Your task to perform on an android device: turn on notifications settings in the gmail app Image 0: 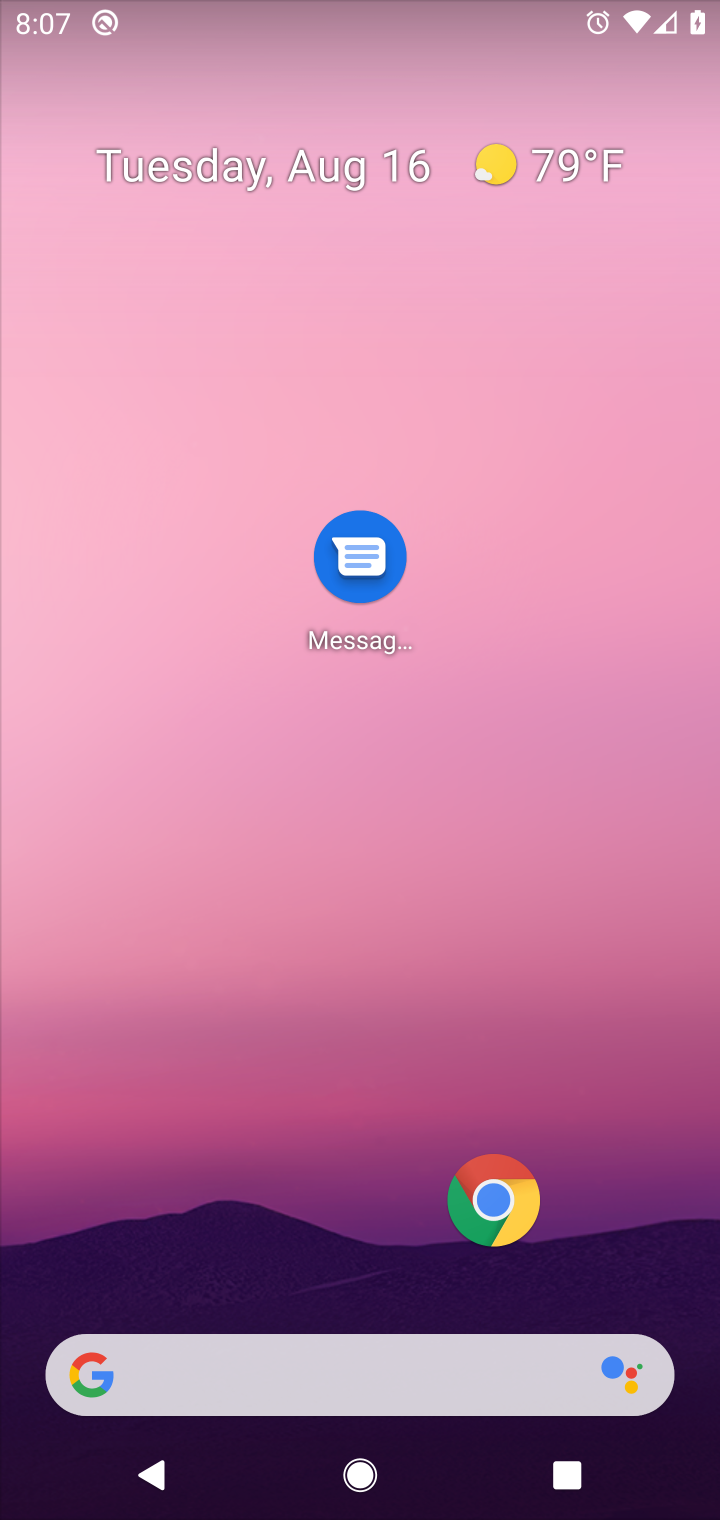
Step 0: drag from (55, 1463) to (373, 602)
Your task to perform on an android device: turn on notifications settings in the gmail app Image 1: 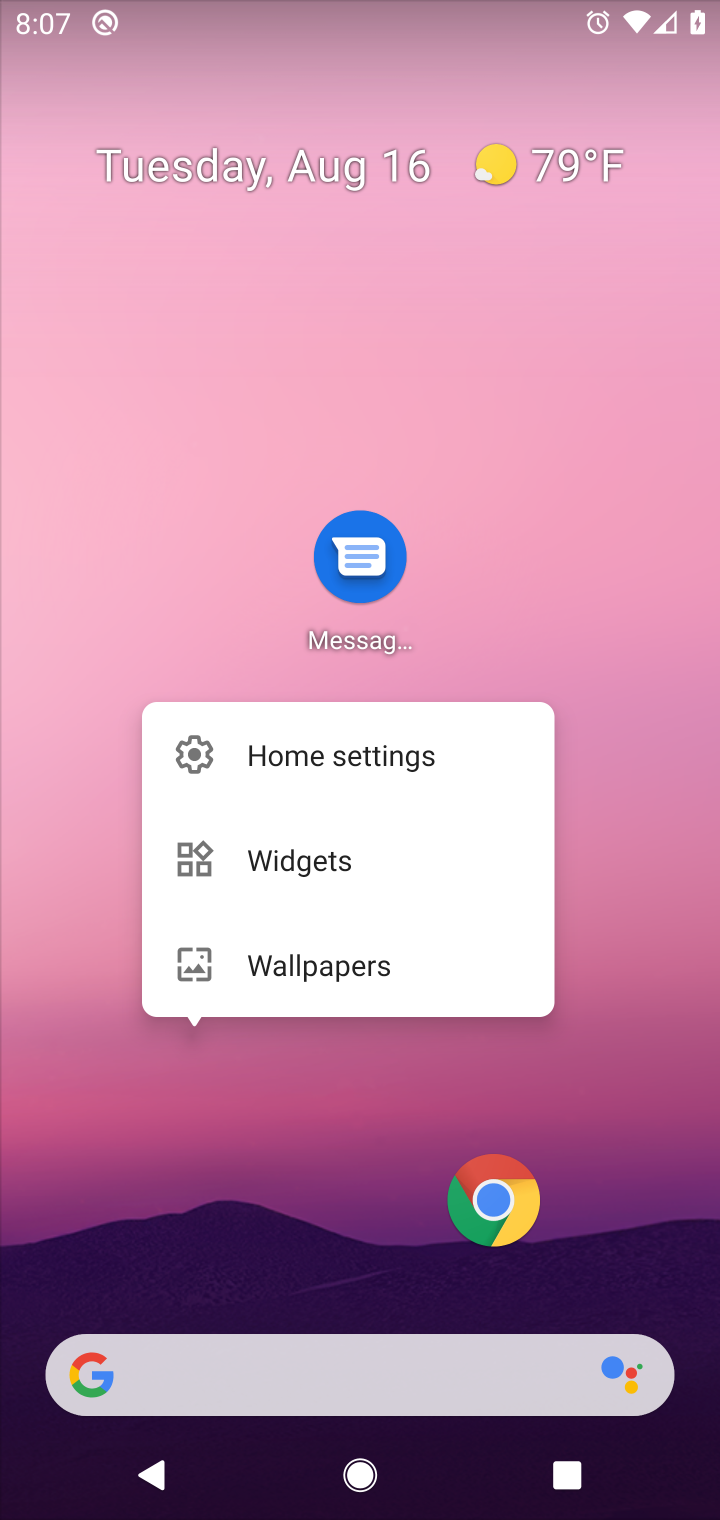
Step 1: drag from (14, 890) to (316, 289)
Your task to perform on an android device: turn on notifications settings in the gmail app Image 2: 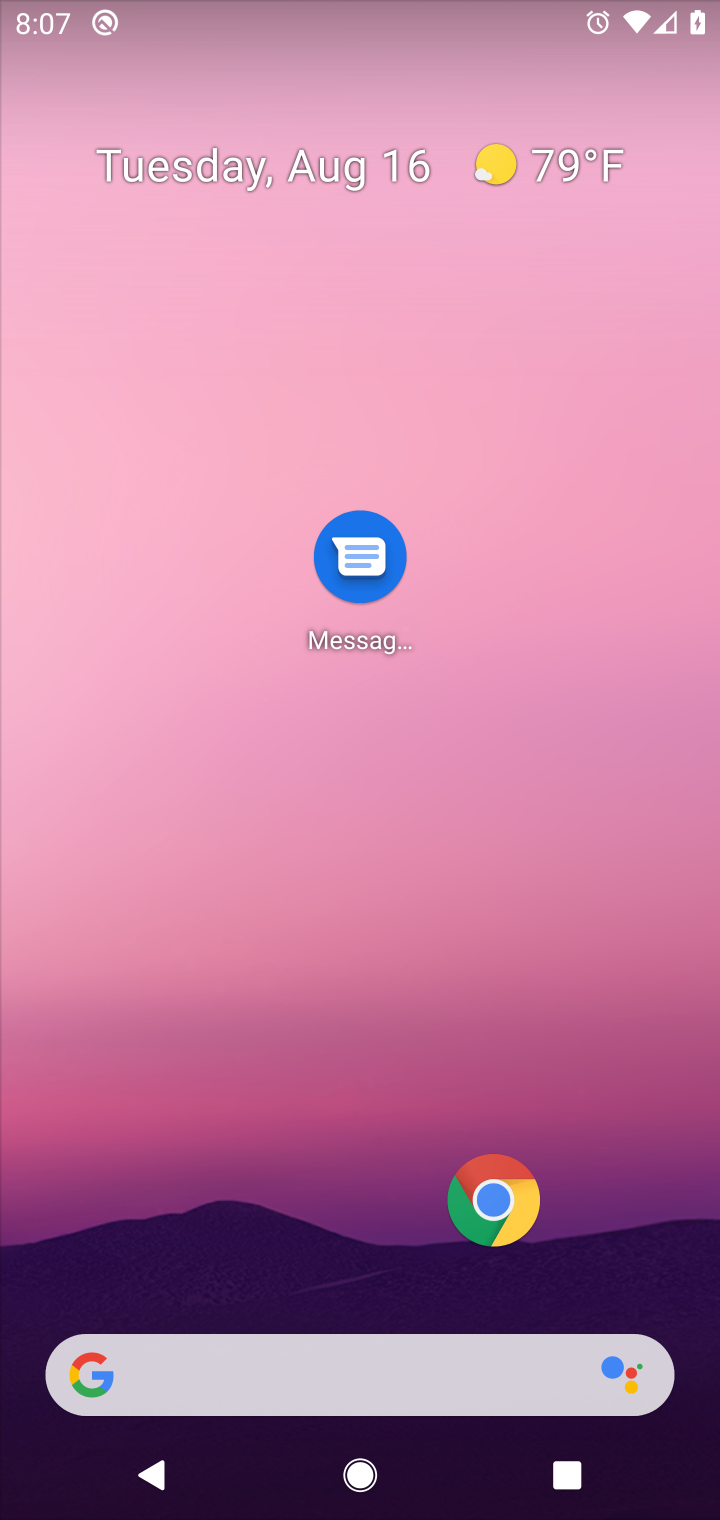
Step 2: drag from (163, 1402) to (220, 459)
Your task to perform on an android device: turn on notifications settings in the gmail app Image 3: 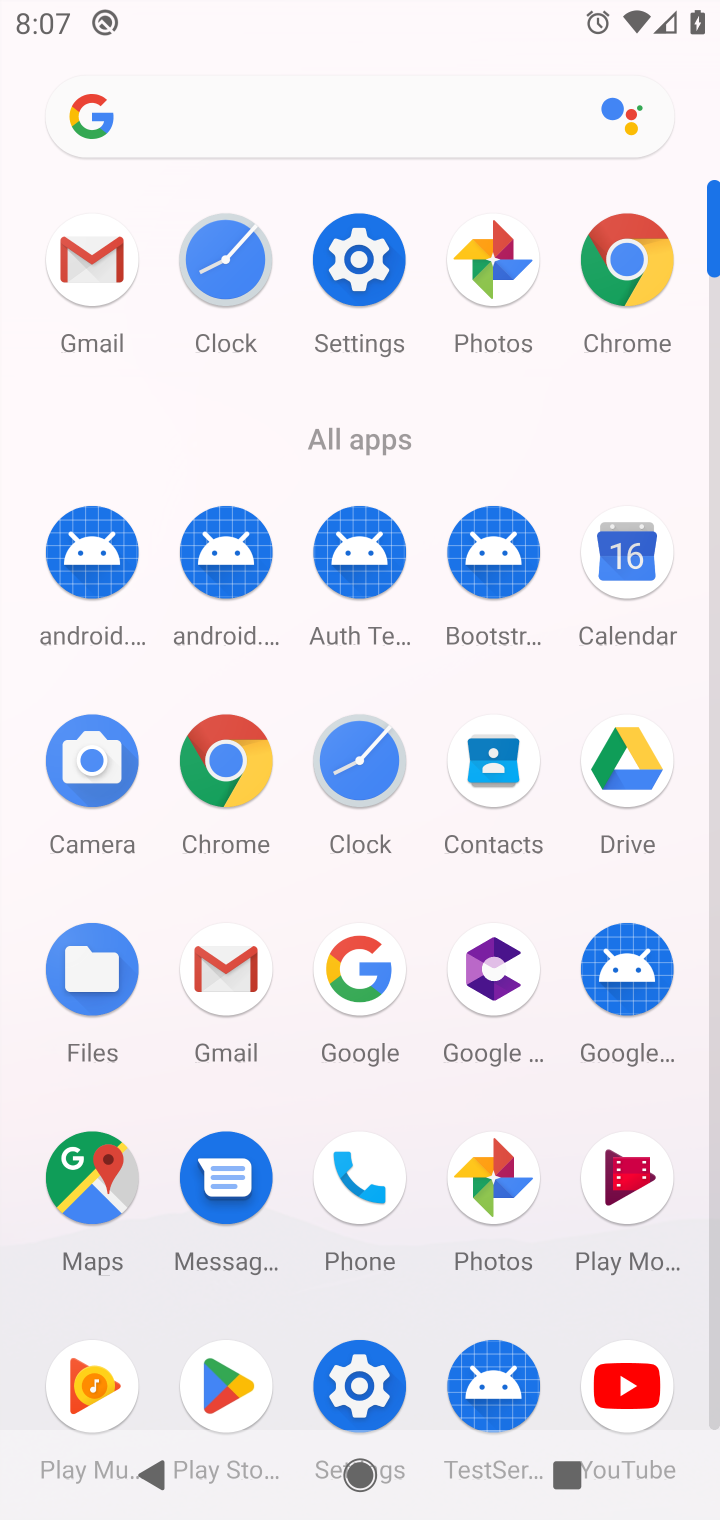
Step 3: click (245, 984)
Your task to perform on an android device: turn on notifications settings in the gmail app Image 4: 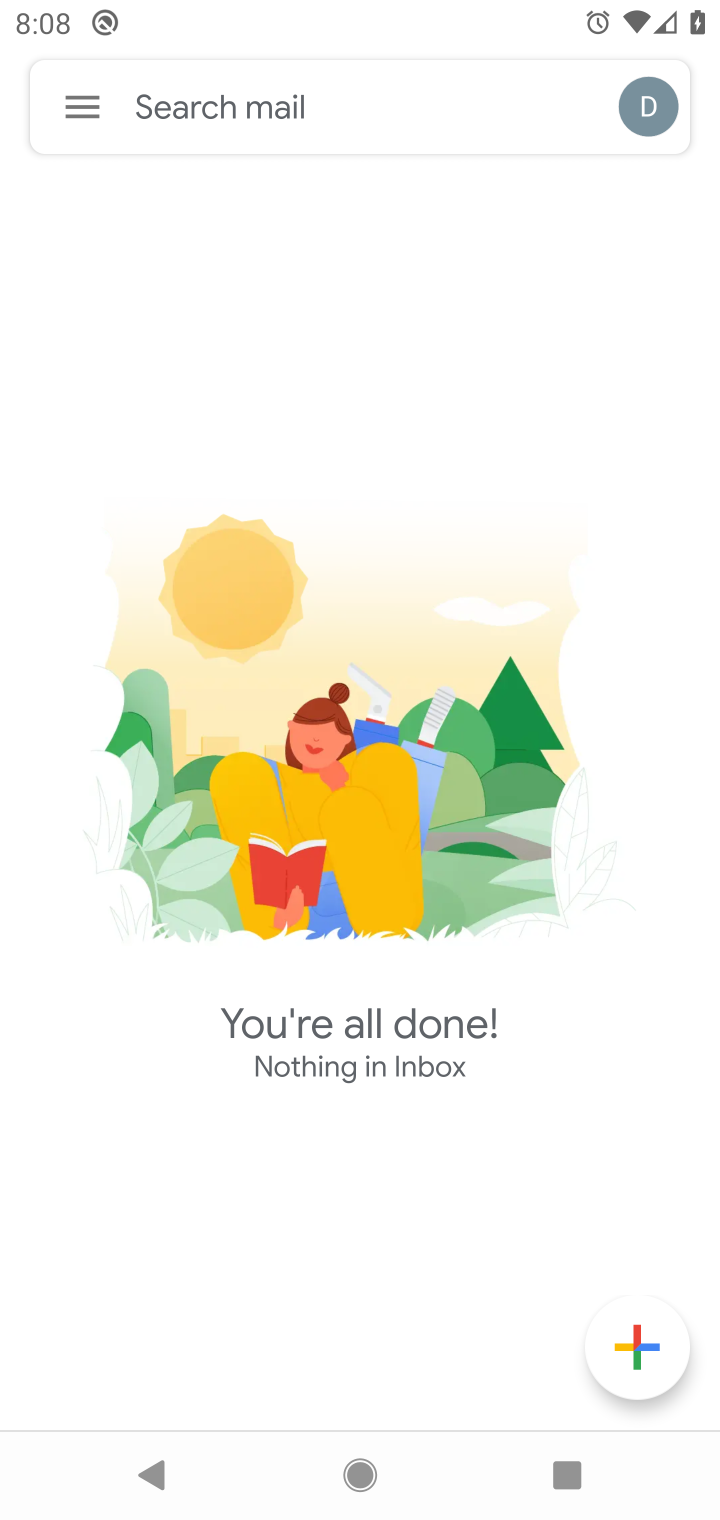
Step 4: click (80, 123)
Your task to perform on an android device: turn on notifications settings in the gmail app Image 5: 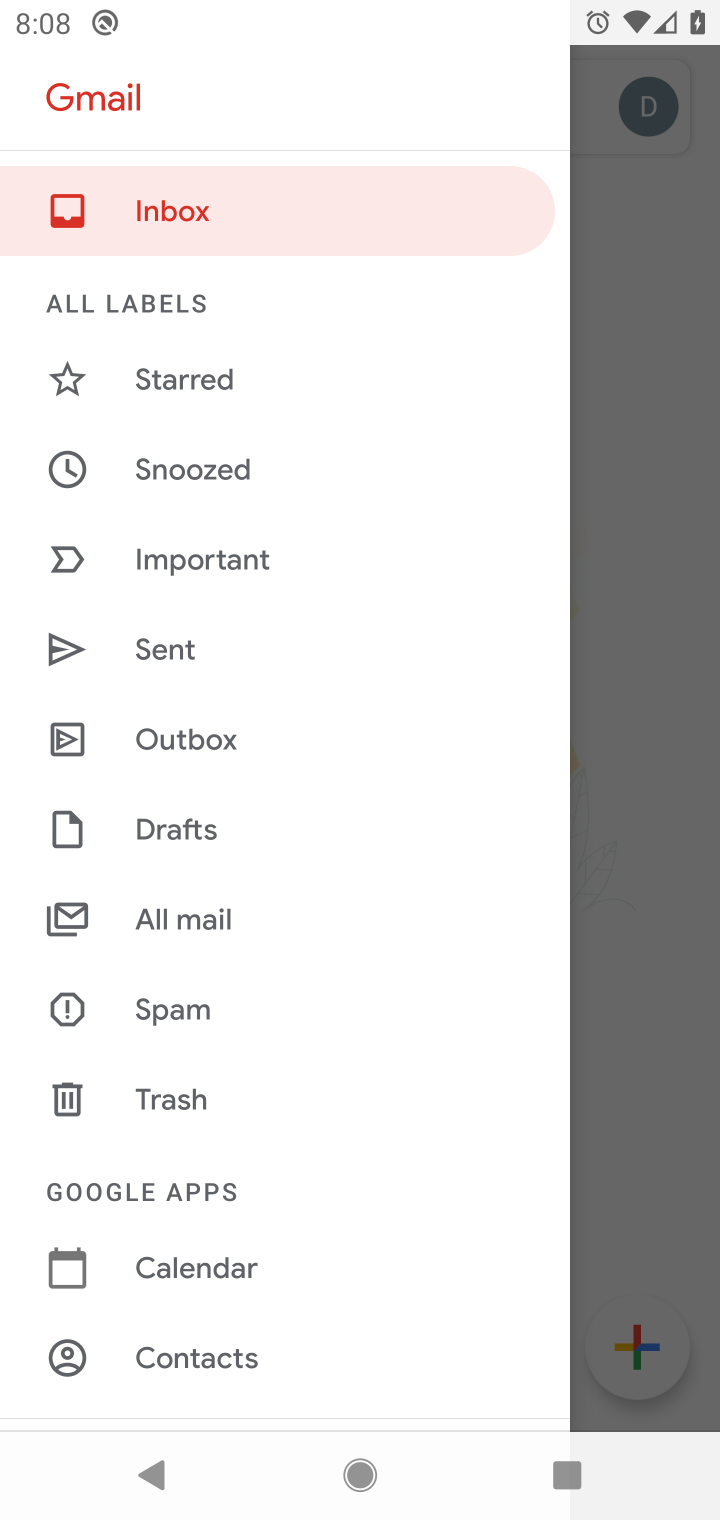
Step 5: drag from (354, 1360) to (486, 361)
Your task to perform on an android device: turn on notifications settings in the gmail app Image 6: 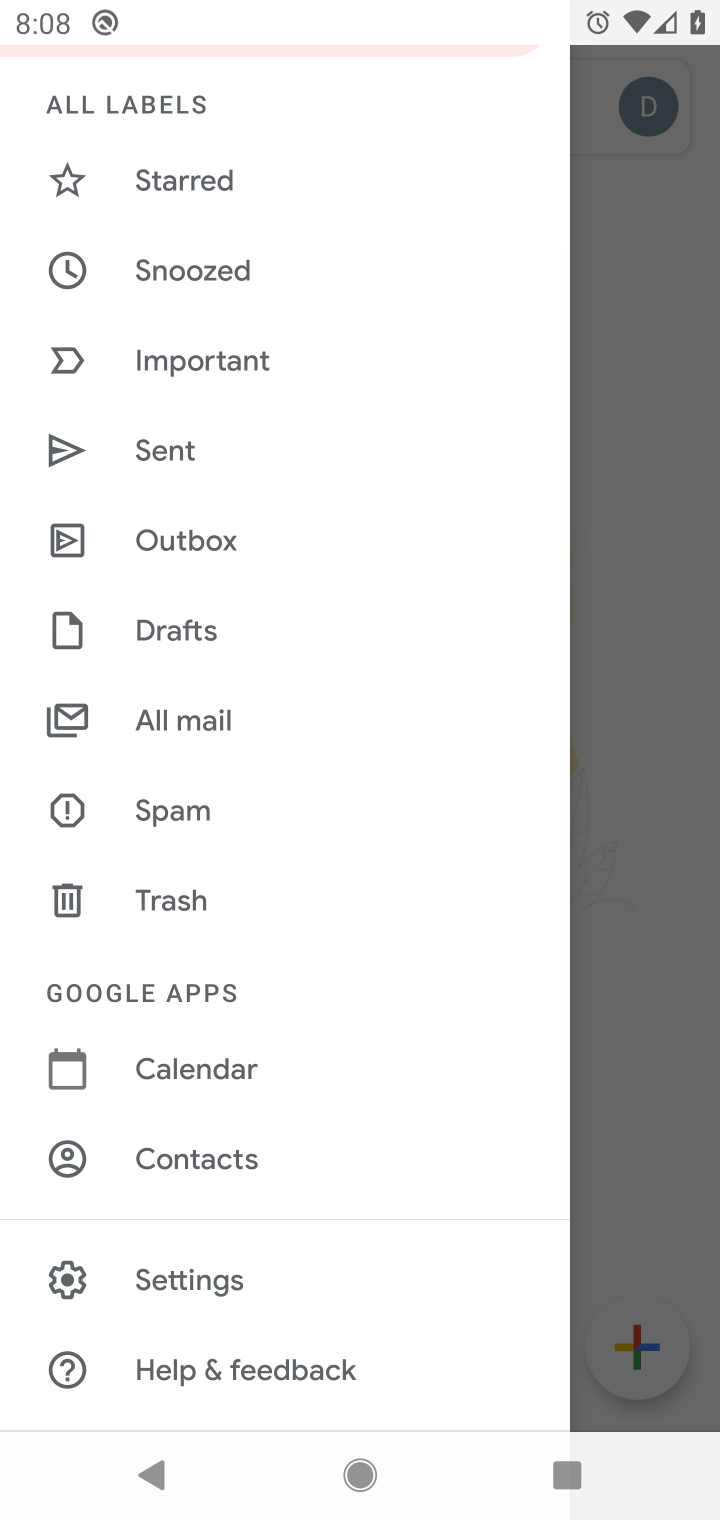
Step 6: click (166, 1289)
Your task to perform on an android device: turn on notifications settings in the gmail app Image 7: 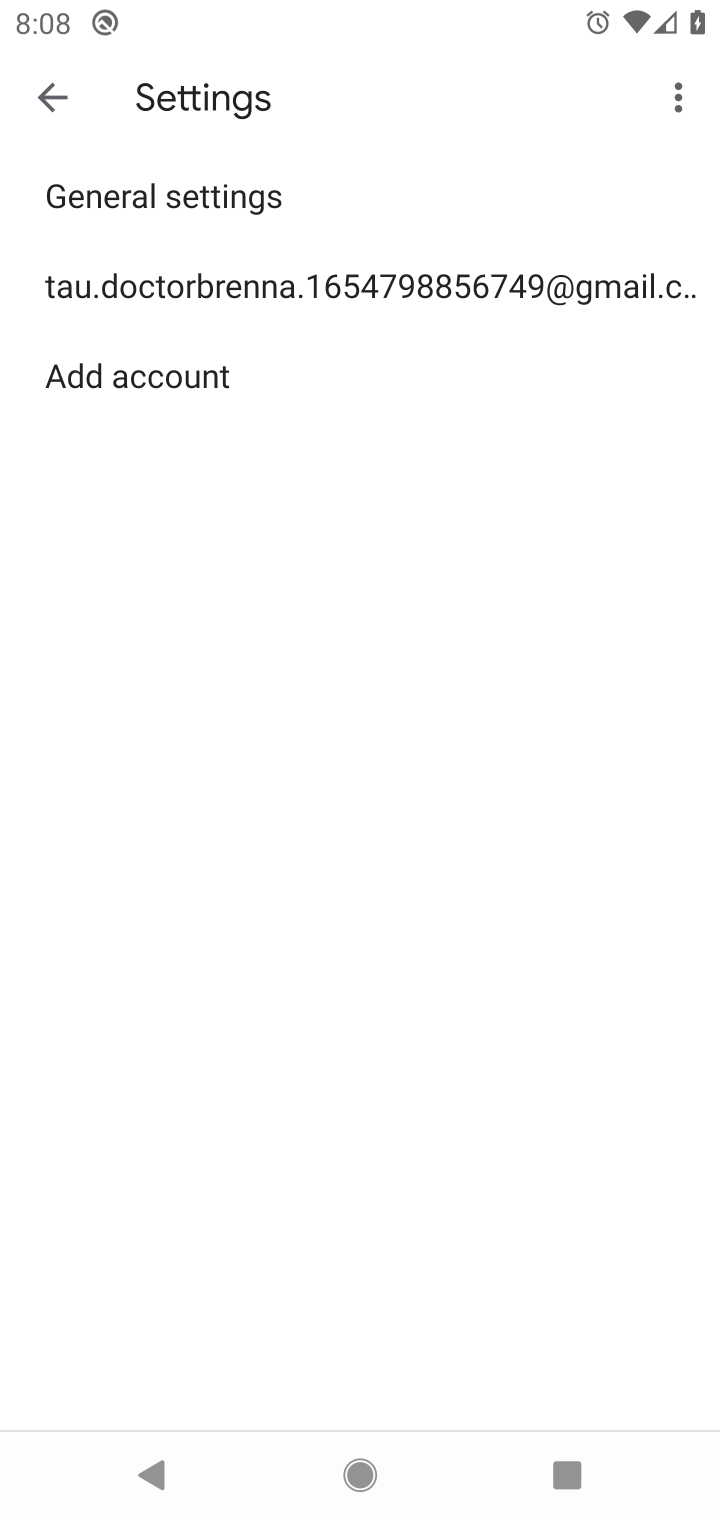
Step 7: click (369, 265)
Your task to perform on an android device: turn on notifications settings in the gmail app Image 8: 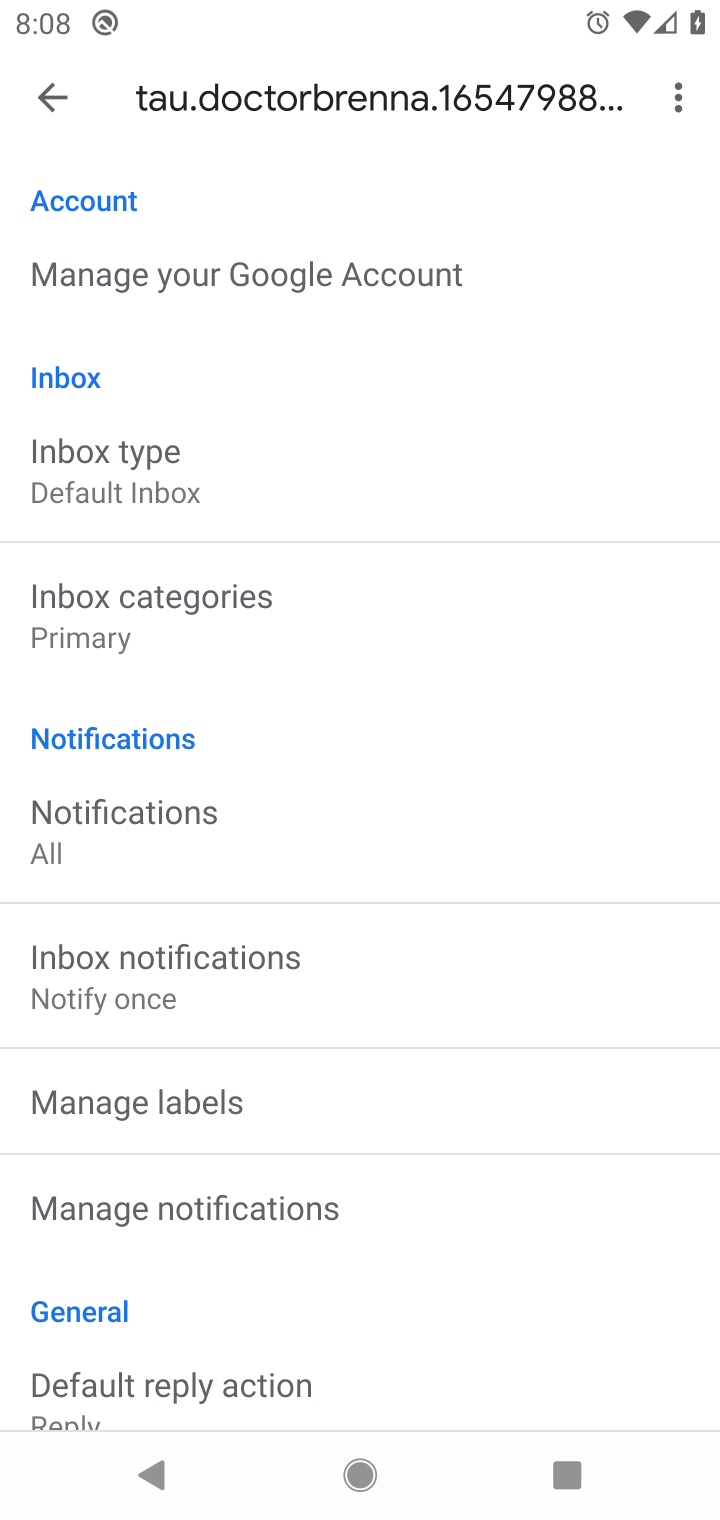
Step 8: click (244, 1213)
Your task to perform on an android device: turn on notifications settings in the gmail app Image 9: 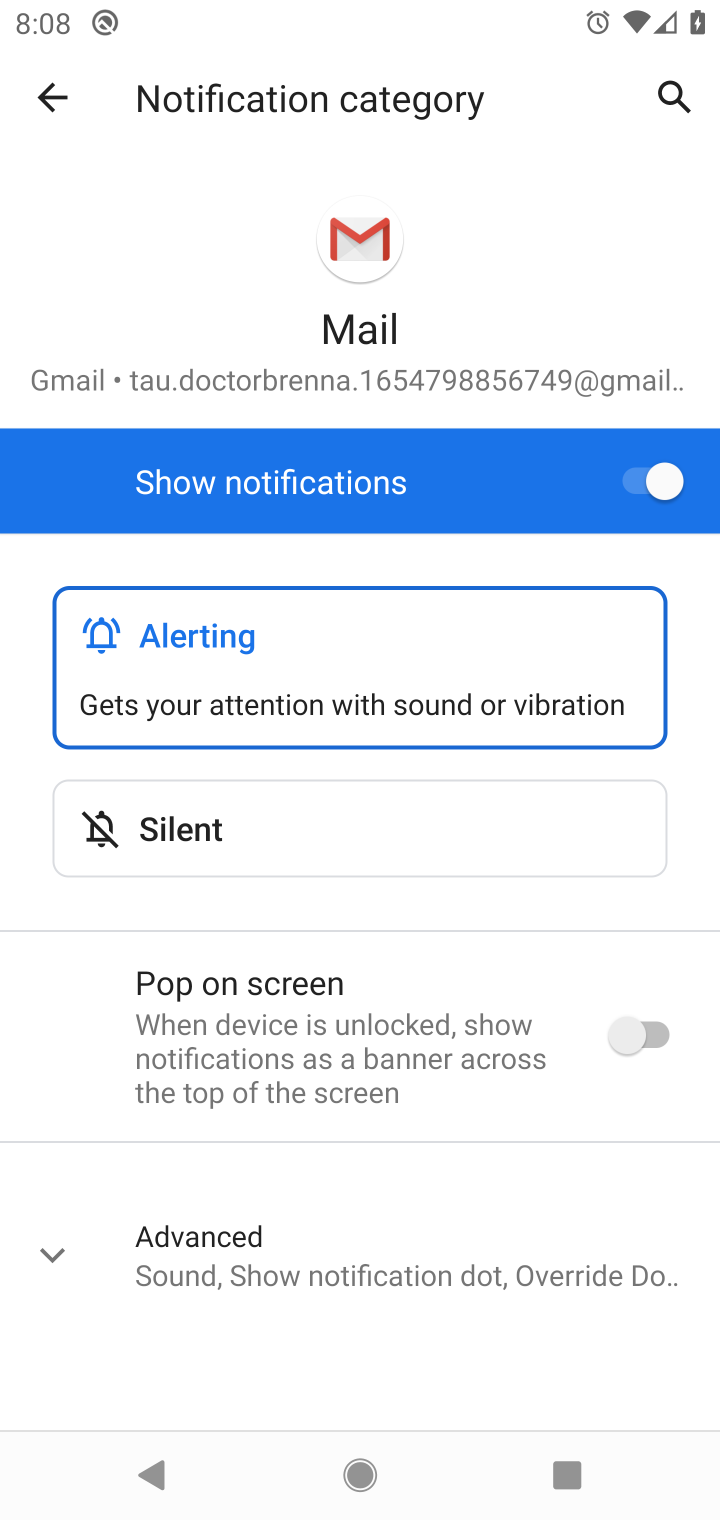
Step 9: task complete